Your task to perform on an android device: star an email in the gmail app Image 0: 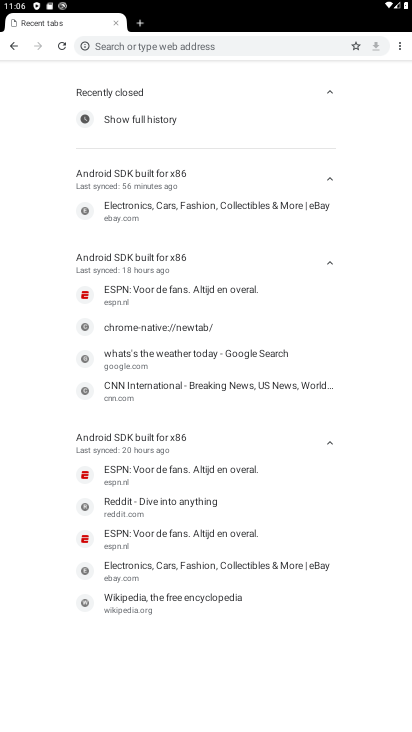
Step 0: press home button
Your task to perform on an android device: star an email in the gmail app Image 1: 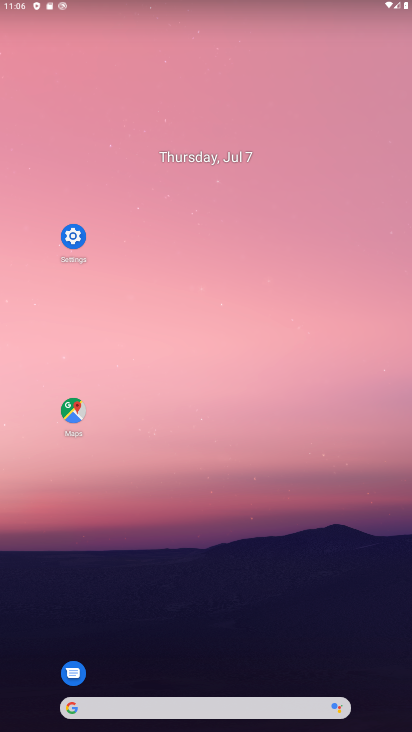
Step 1: click (75, 409)
Your task to perform on an android device: star an email in the gmail app Image 2: 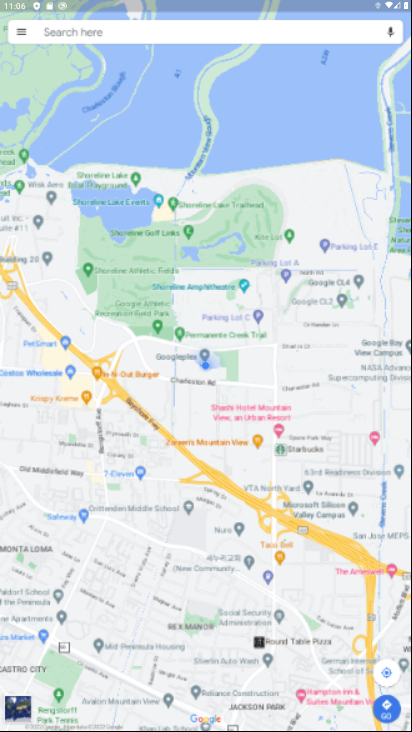
Step 2: click (206, 38)
Your task to perform on an android device: star an email in the gmail app Image 3: 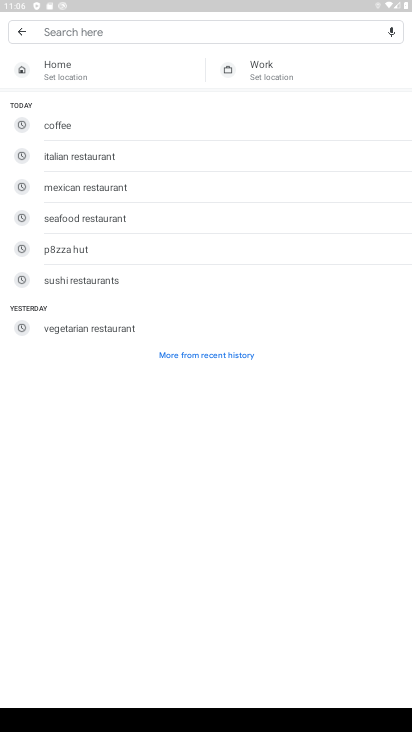
Step 3: press back button
Your task to perform on an android device: star an email in the gmail app Image 4: 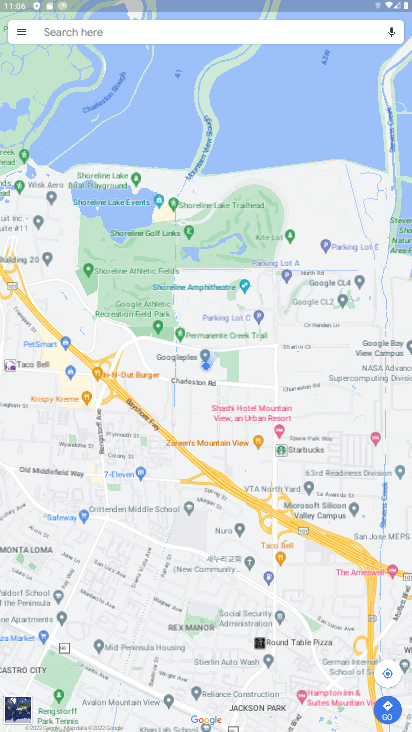
Step 4: press back button
Your task to perform on an android device: star an email in the gmail app Image 5: 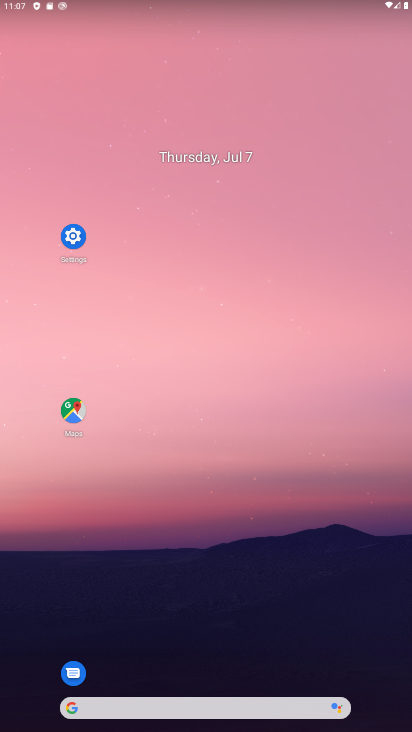
Step 5: drag from (253, 567) to (273, 108)
Your task to perform on an android device: star an email in the gmail app Image 6: 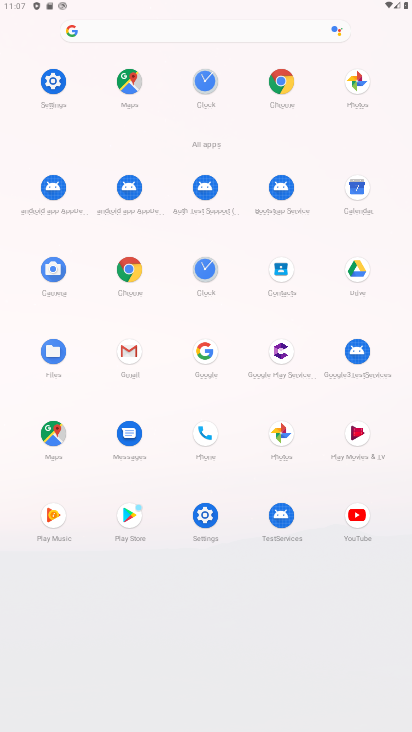
Step 6: drag from (129, 346) to (142, 177)
Your task to perform on an android device: star an email in the gmail app Image 7: 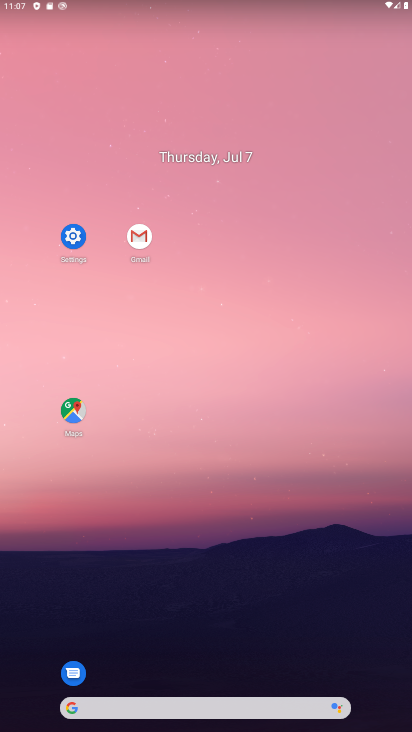
Step 7: click (138, 231)
Your task to perform on an android device: star an email in the gmail app Image 8: 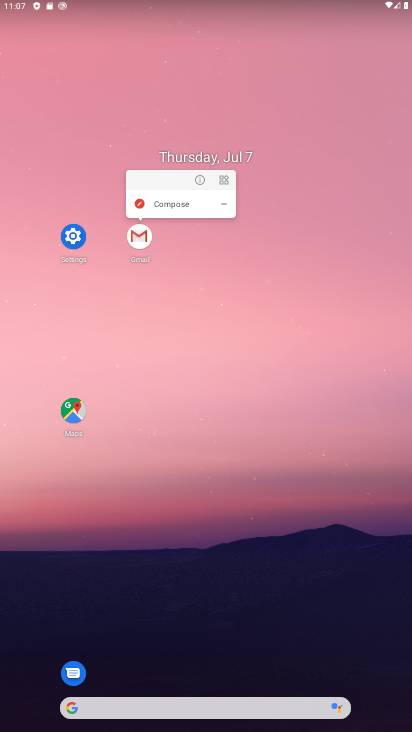
Step 8: click (143, 231)
Your task to perform on an android device: star an email in the gmail app Image 9: 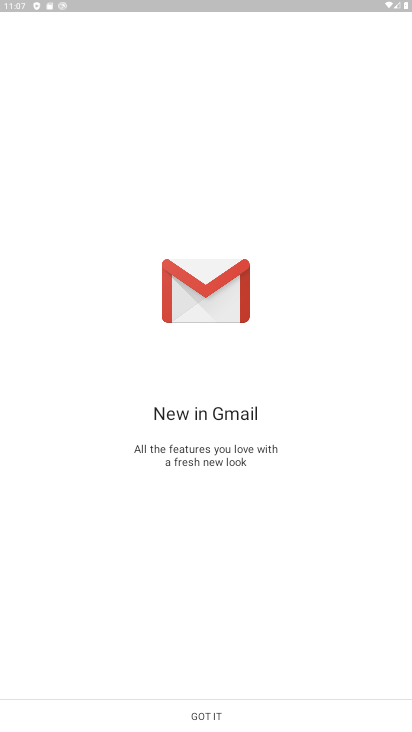
Step 9: click (287, 715)
Your task to perform on an android device: star an email in the gmail app Image 10: 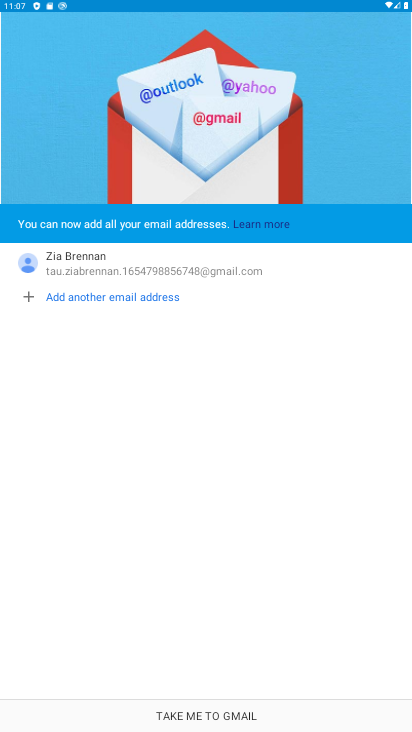
Step 10: click (287, 712)
Your task to perform on an android device: star an email in the gmail app Image 11: 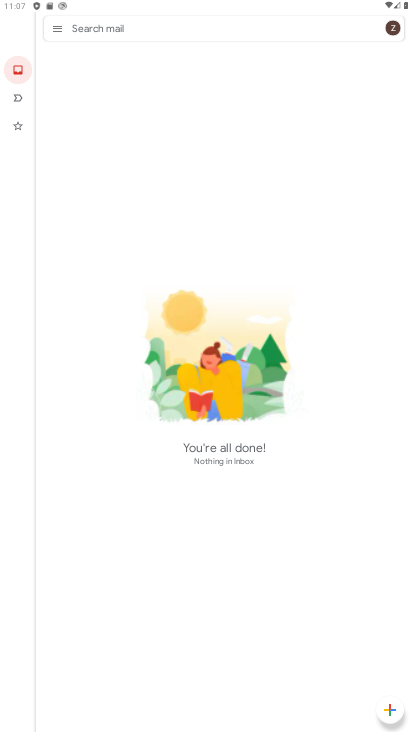
Step 11: click (62, 27)
Your task to perform on an android device: star an email in the gmail app Image 12: 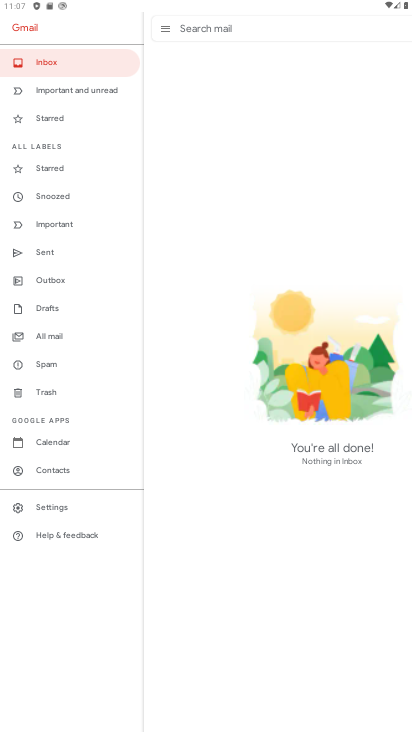
Step 12: click (71, 333)
Your task to perform on an android device: star an email in the gmail app Image 13: 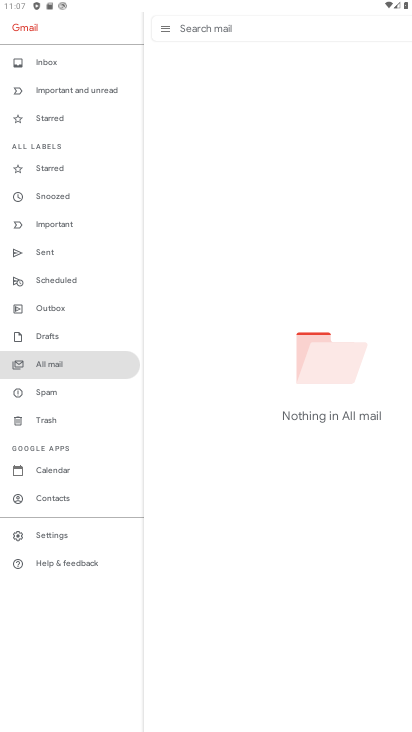
Step 13: task complete